Your task to perform on an android device: Open maps Image 0: 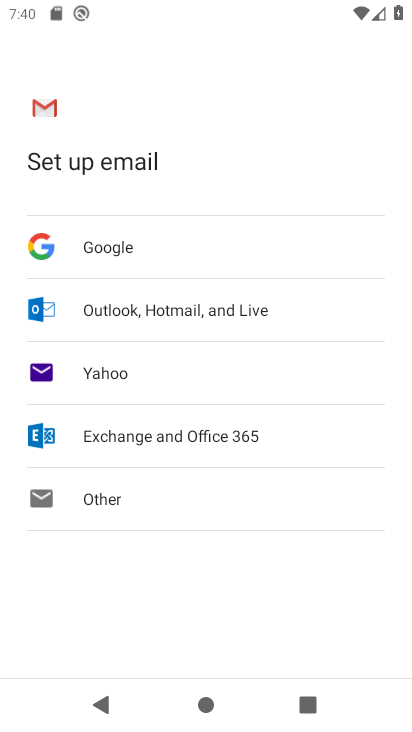
Step 0: press home button
Your task to perform on an android device: Open maps Image 1: 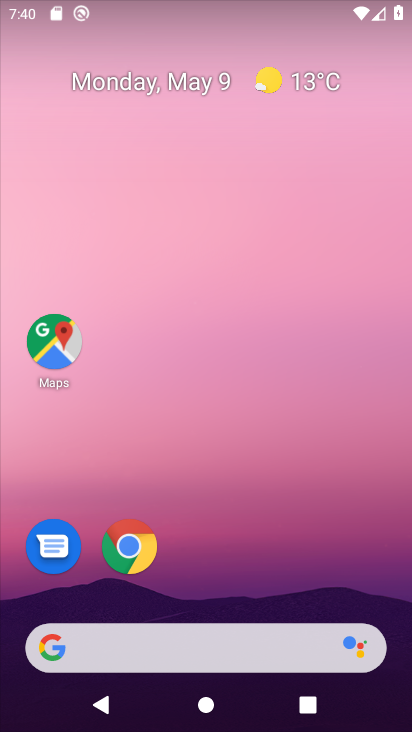
Step 1: click (46, 337)
Your task to perform on an android device: Open maps Image 2: 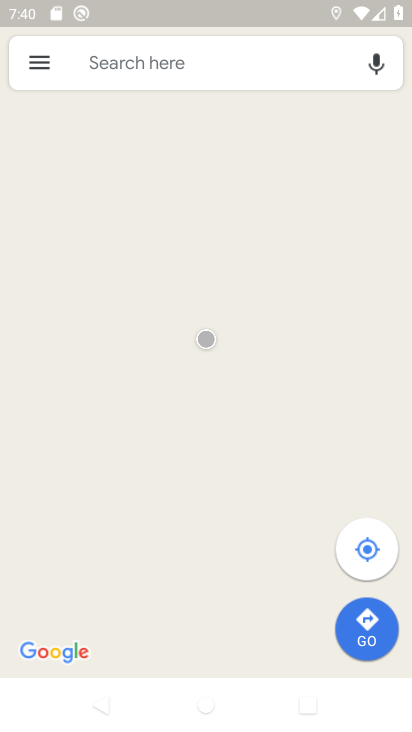
Step 2: task complete